Your task to perform on an android device: toggle airplane mode Image 0: 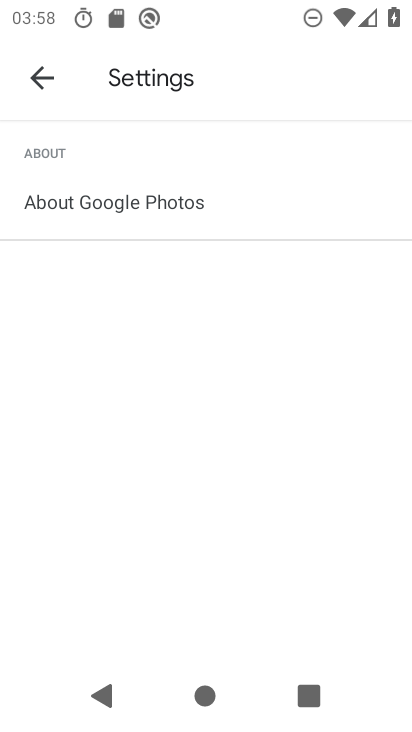
Step 0: drag from (252, 41) to (243, 563)
Your task to perform on an android device: toggle airplane mode Image 1: 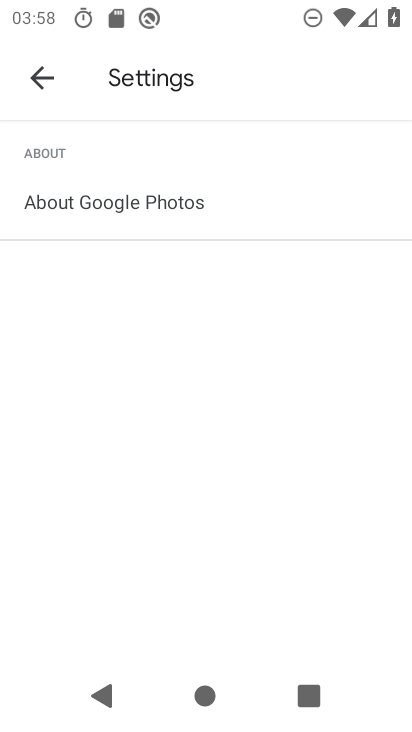
Step 1: press home button
Your task to perform on an android device: toggle airplane mode Image 2: 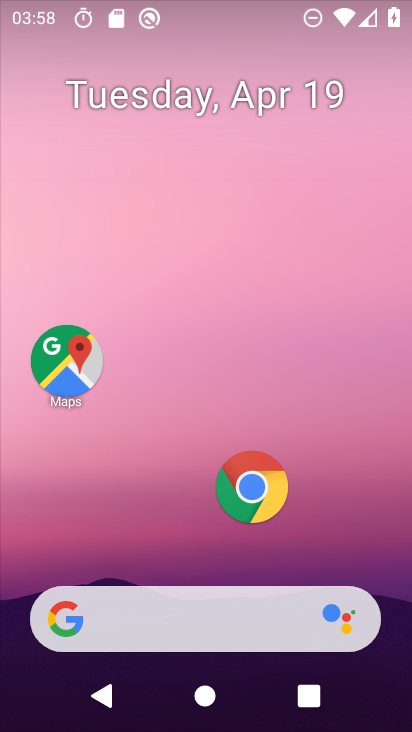
Step 2: drag from (271, 41) to (237, 591)
Your task to perform on an android device: toggle airplane mode Image 3: 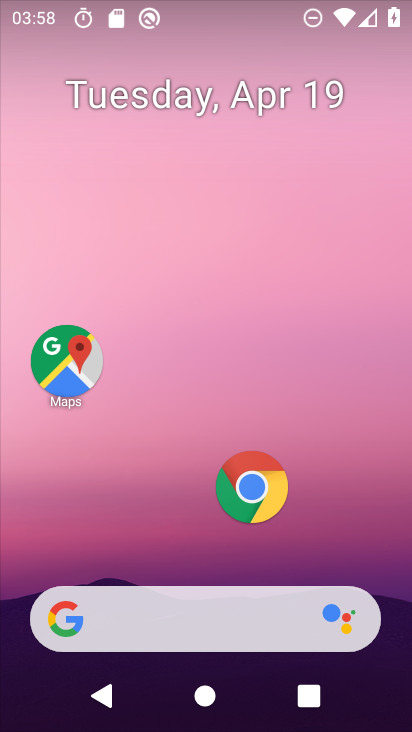
Step 3: drag from (196, 7) to (195, 494)
Your task to perform on an android device: toggle airplane mode Image 4: 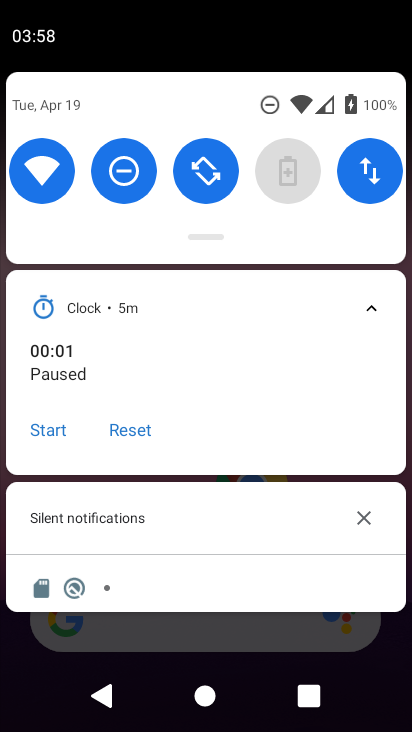
Step 4: drag from (198, 232) to (207, 676)
Your task to perform on an android device: toggle airplane mode Image 5: 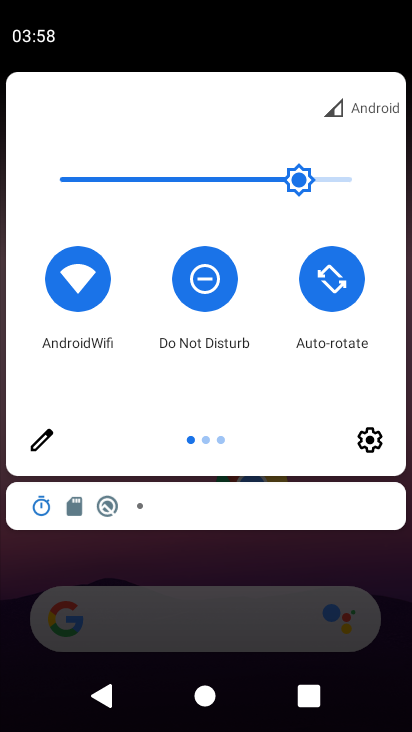
Step 5: drag from (356, 268) to (61, 296)
Your task to perform on an android device: toggle airplane mode Image 6: 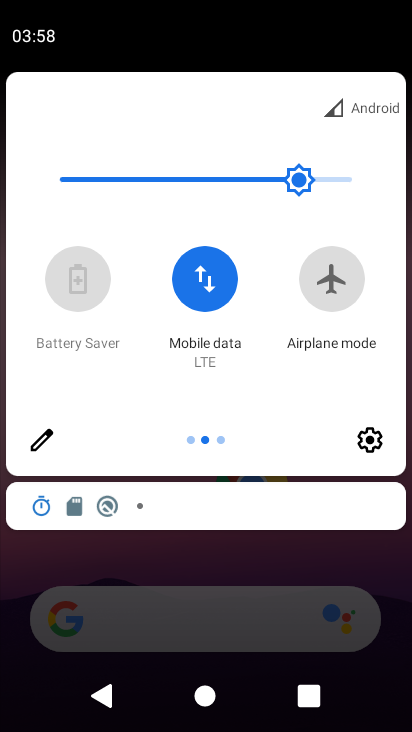
Step 6: click (330, 274)
Your task to perform on an android device: toggle airplane mode Image 7: 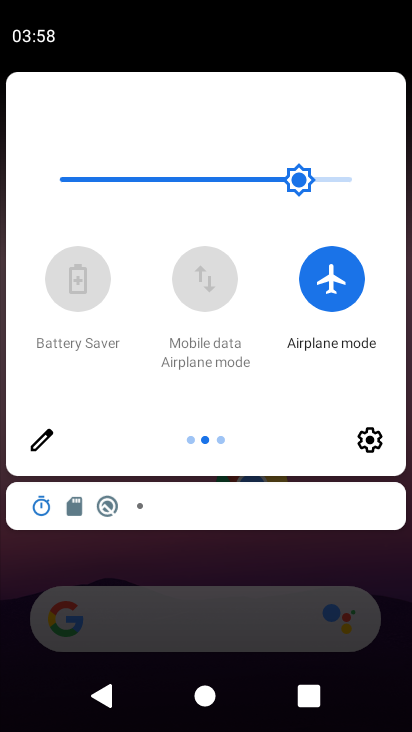
Step 7: task complete